Your task to perform on an android device: open chrome privacy settings Image 0: 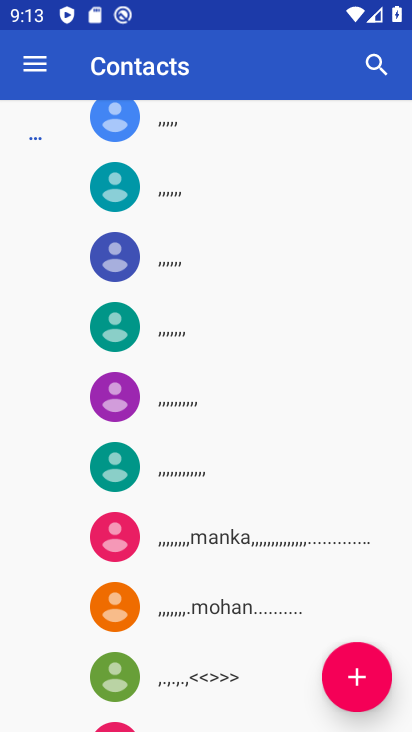
Step 0: press home button
Your task to perform on an android device: open chrome privacy settings Image 1: 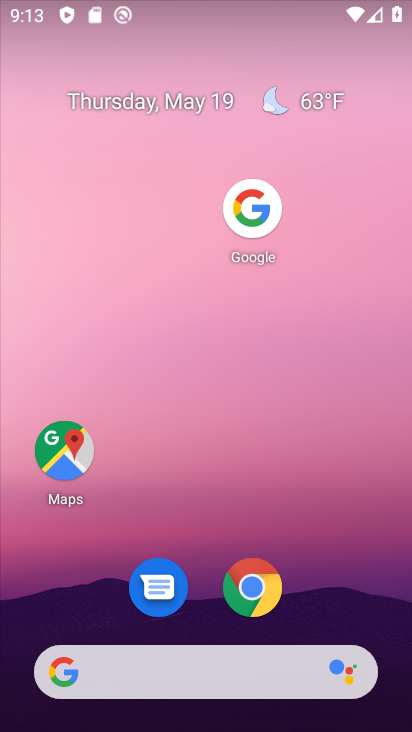
Step 1: drag from (213, 620) to (202, 52)
Your task to perform on an android device: open chrome privacy settings Image 2: 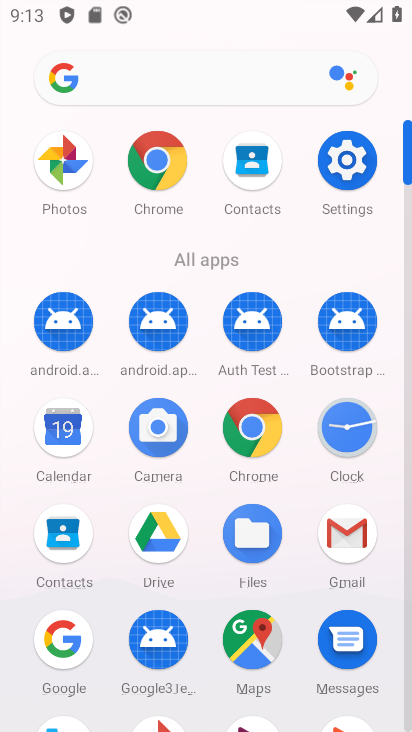
Step 2: click (260, 463)
Your task to perform on an android device: open chrome privacy settings Image 3: 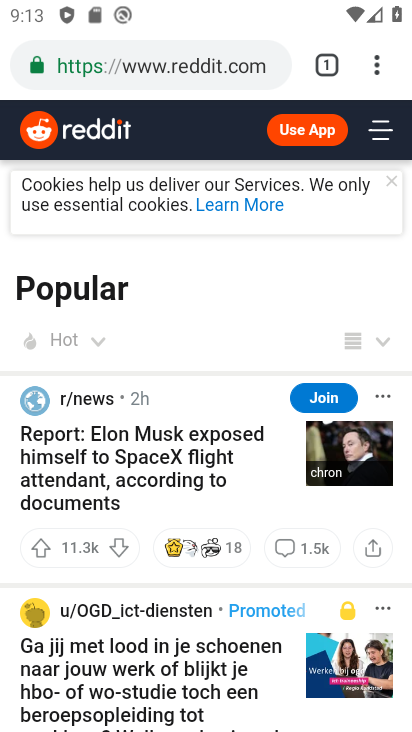
Step 3: click (379, 64)
Your task to perform on an android device: open chrome privacy settings Image 4: 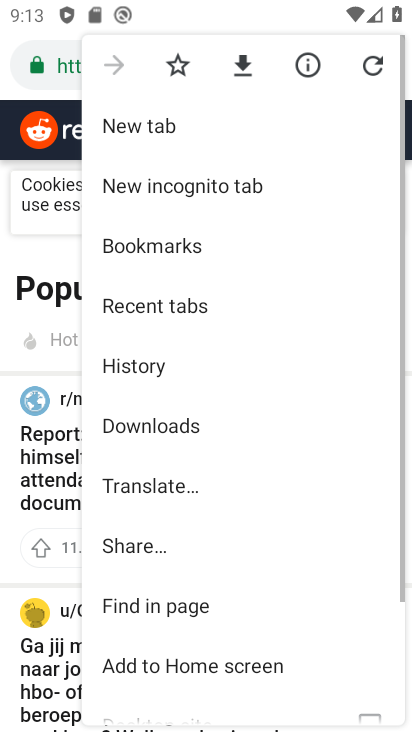
Step 4: drag from (214, 617) to (196, 145)
Your task to perform on an android device: open chrome privacy settings Image 5: 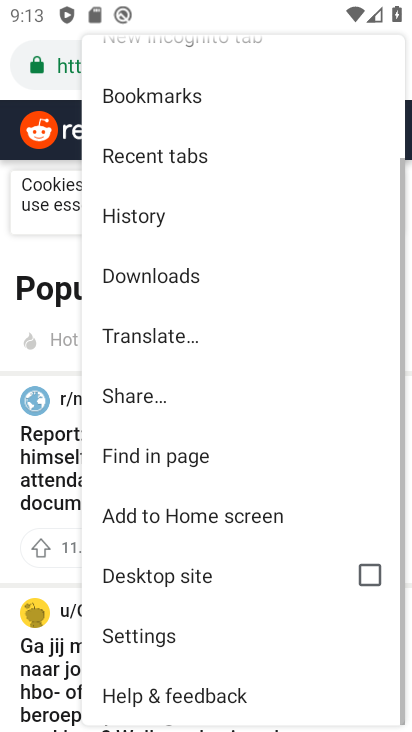
Step 5: click (129, 648)
Your task to perform on an android device: open chrome privacy settings Image 6: 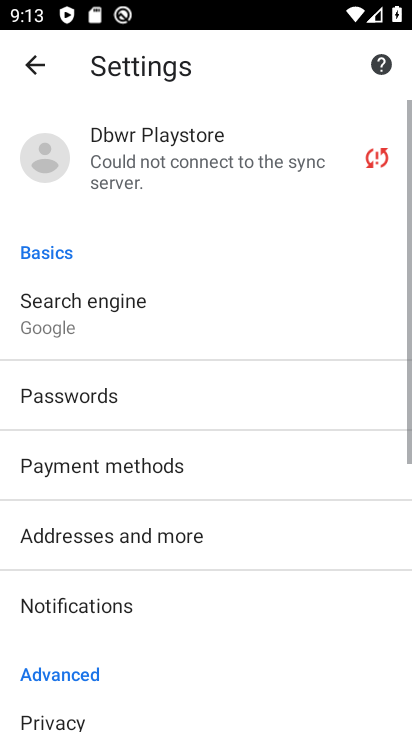
Step 6: drag from (255, 653) to (228, 210)
Your task to perform on an android device: open chrome privacy settings Image 7: 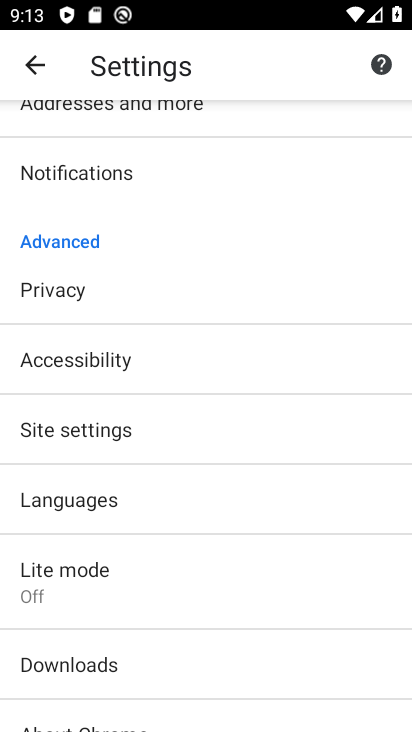
Step 7: click (61, 273)
Your task to perform on an android device: open chrome privacy settings Image 8: 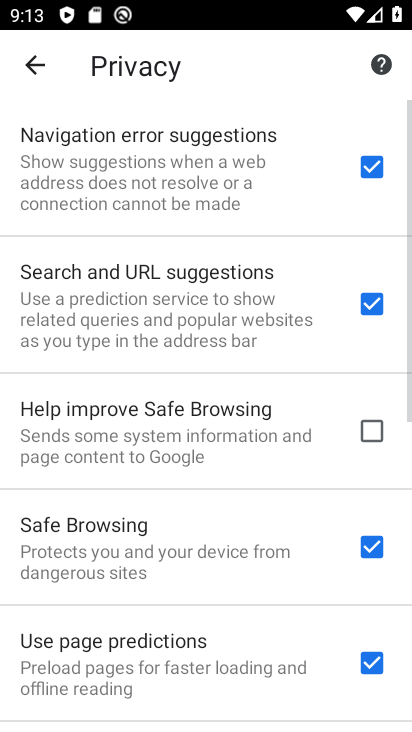
Step 8: task complete